Your task to perform on an android device: Open the web browser Image 0: 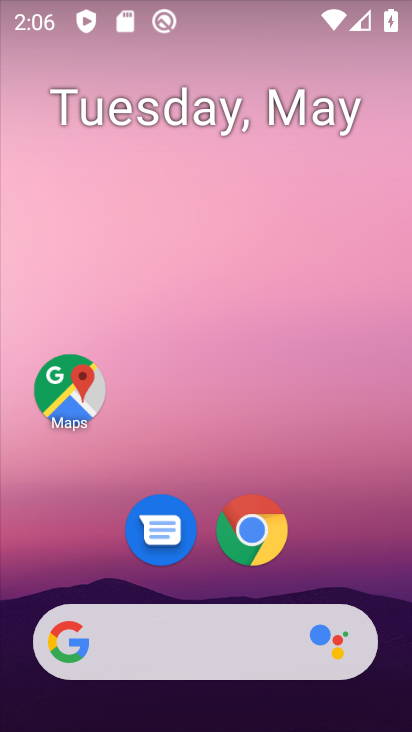
Step 0: click (211, 625)
Your task to perform on an android device: Open the web browser Image 1: 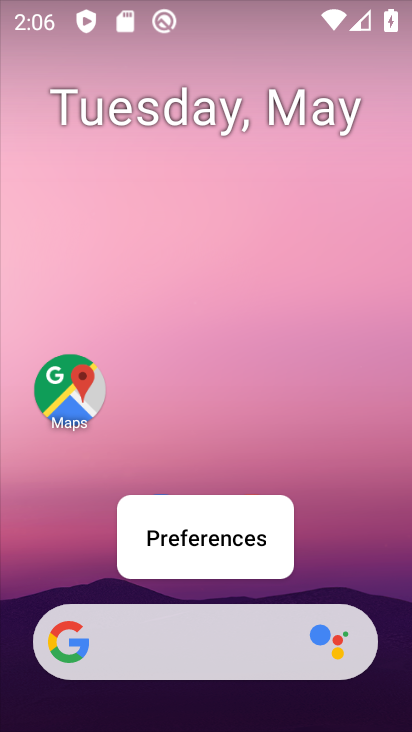
Step 1: click (162, 679)
Your task to perform on an android device: Open the web browser Image 2: 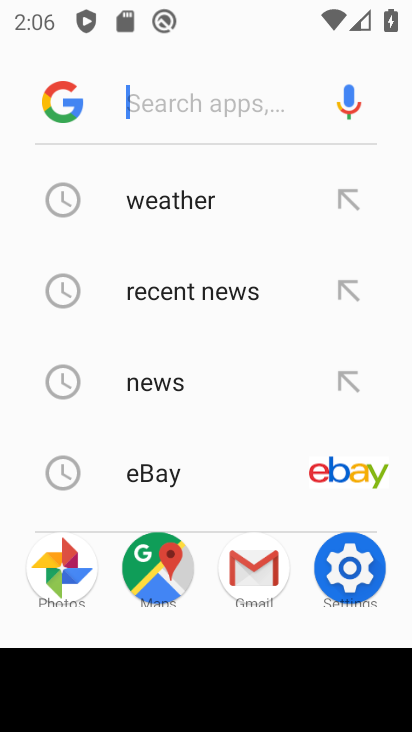
Step 2: task complete